Your task to perform on an android device: Search for "rayovac triple a" on bestbuy, select the first entry, add it to the cart, then select checkout. Image 0: 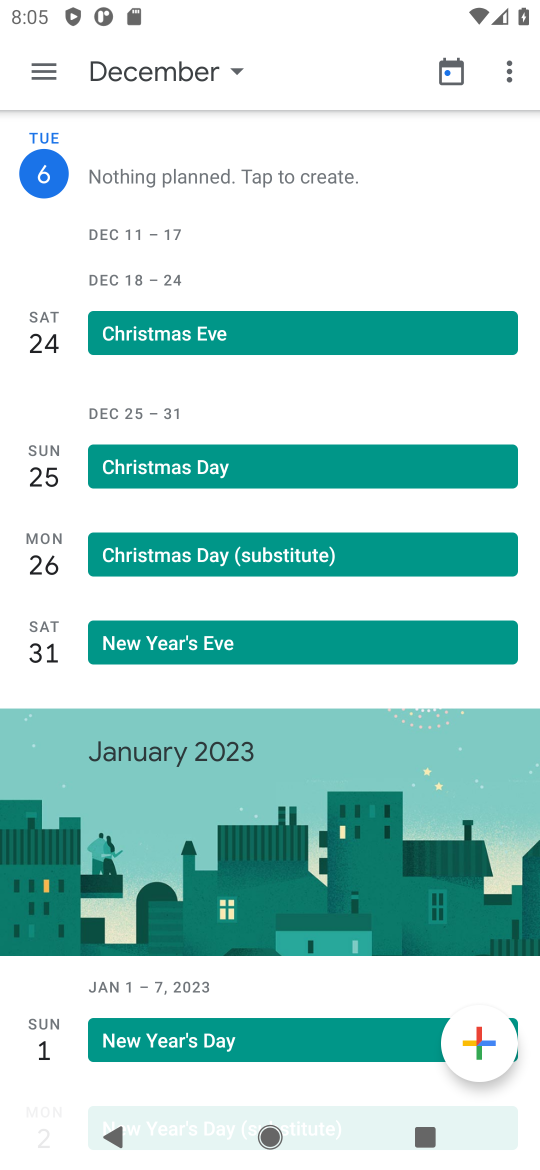
Step 0: press home button
Your task to perform on an android device: Search for "rayovac triple a" on bestbuy, select the first entry, add it to the cart, then select checkout. Image 1: 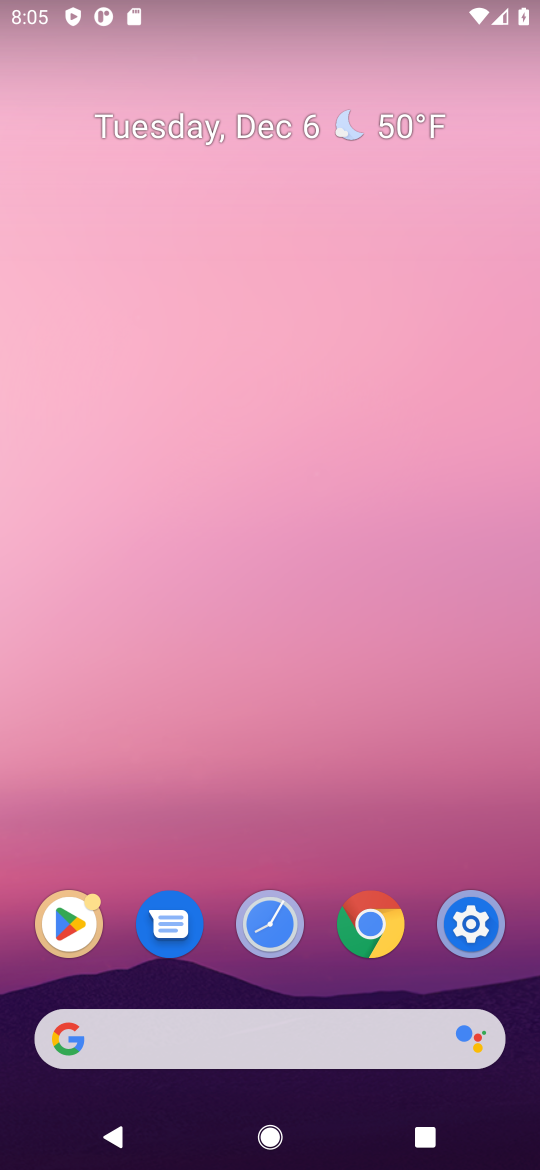
Step 1: click (281, 1028)
Your task to perform on an android device: Search for "rayovac triple a" on bestbuy, select the first entry, add it to the cart, then select checkout. Image 2: 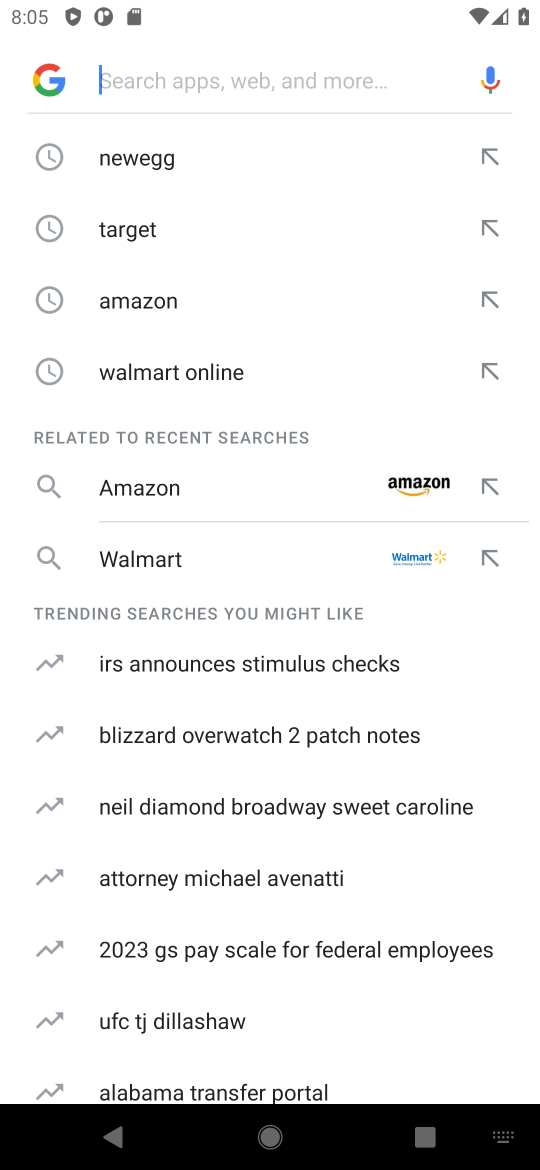
Step 2: type "bestbuuy"
Your task to perform on an android device: Search for "rayovac triple a" on bestbuy, select the first entry, add it to the cart, then select checkout. Image 3: 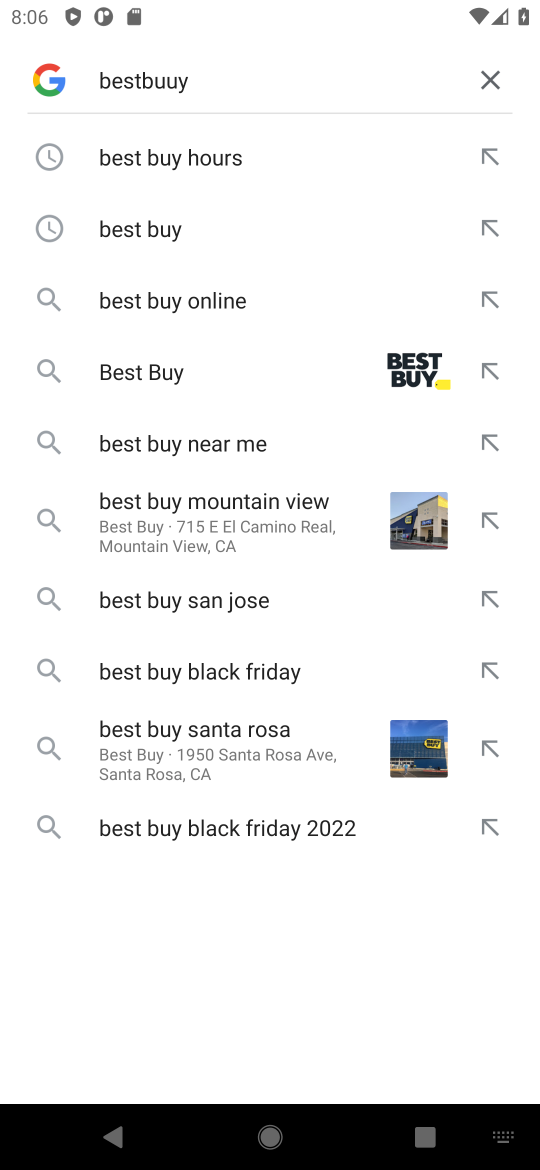
Step 3: click (190, 370)
Your task to perform on an android device: Search for "rayovac triple a" on bestbuy, select the first entry, add it to the cart, then select checkout. Image 4: 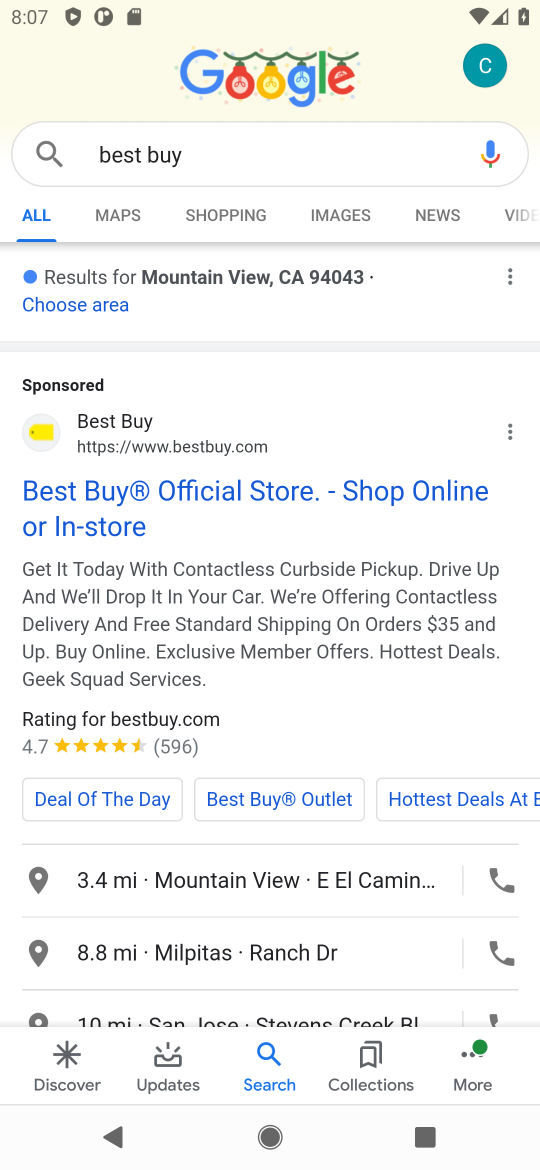
Step 4: click (148, 502)
Your task to perform on an android device: Search for "rayovac triple a" on bestbuy, select the first entry, add it to the cart, then select checkout. Image 5: 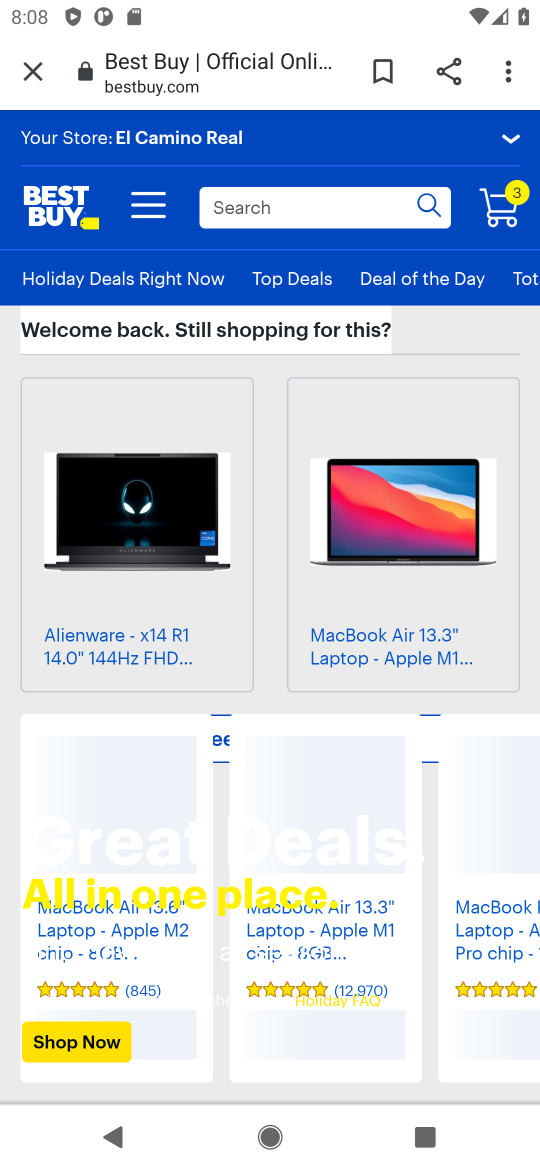
Step 5: click (268, 212)
Your task to perform on an android device: Search for "rayovac triple a" on bestbuy, select the first entry, add it to the cart, then select checkout. Image 6: 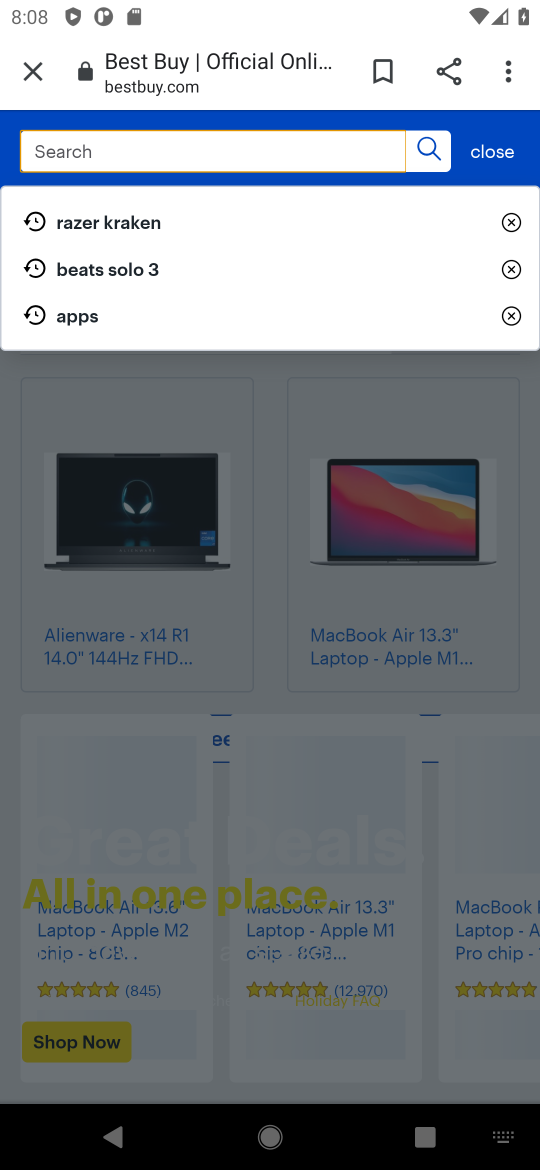
Step 6: type "rayovac triple a"
Your task to perform on an android device: Search for "rayovac triple a" on bestbuy, select the first entry, add it to the cart, then select checkout. Image 7: 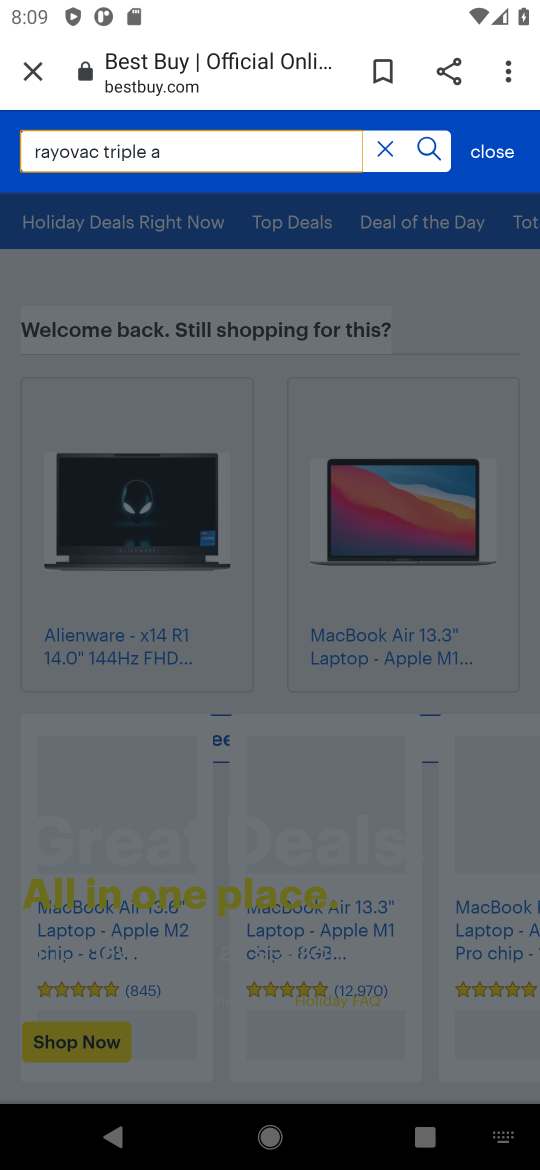
Step 7: click (417, 150)
Your task to perform on an android device: Search for "rayovac triple a" on bestbuy, select the first entry, add it to the cart, then select checkout. Image 8: 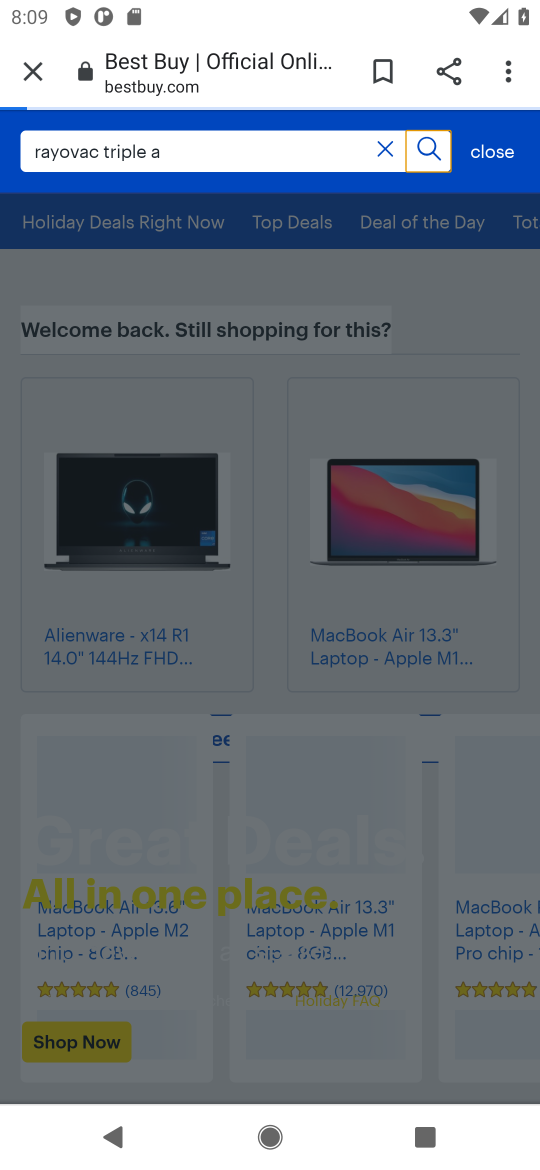
Step 8: task complete